Your task to perform on an android device: Go to Android settings Image 0: 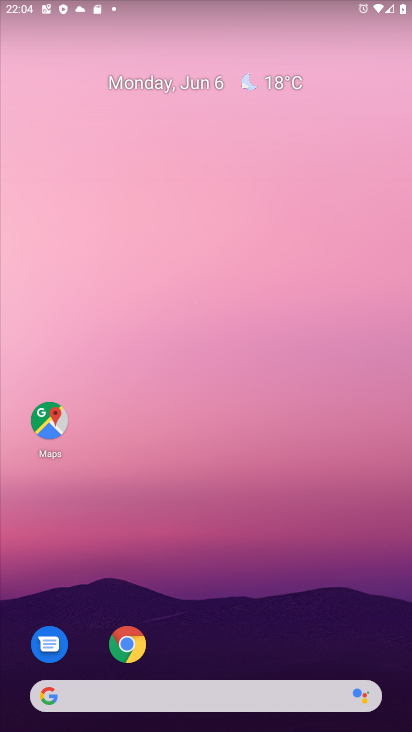
Step 0: press home button
Your task to perform on an android device: Go to Android settings Image 1: 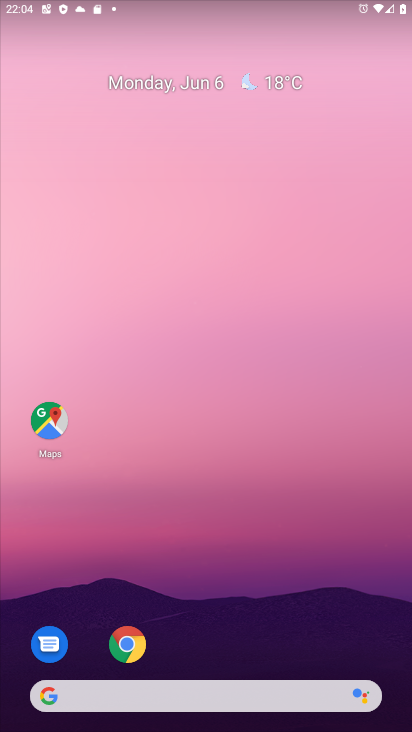
Step 1: drag from (329, 606) to (258, 190)
Your task to perform on an android device: Go to Android settings Image 2: 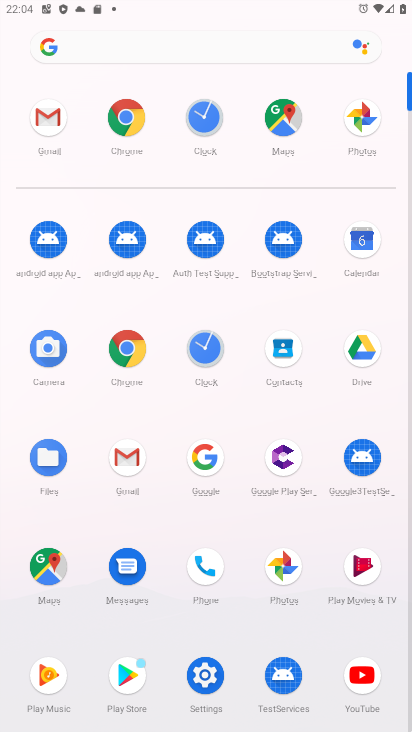
Step 2: click (207, 662)
Your task to perform on an android device: Go to Android settings Image 3: 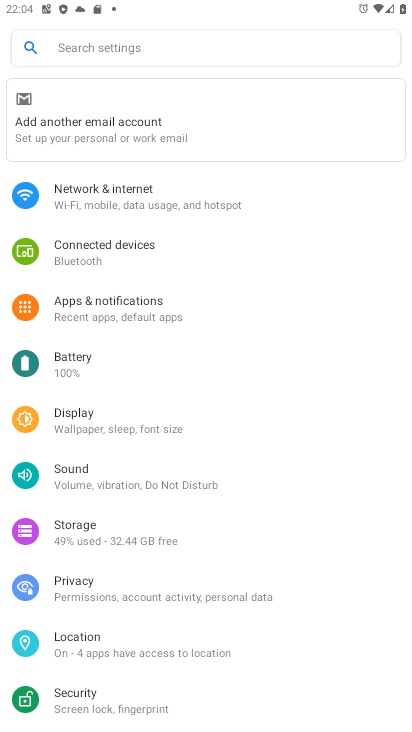
Step 3: drag from (251, 650) to (220, 415)
Your task to perform on an android device: Go to Android settings Image 4: 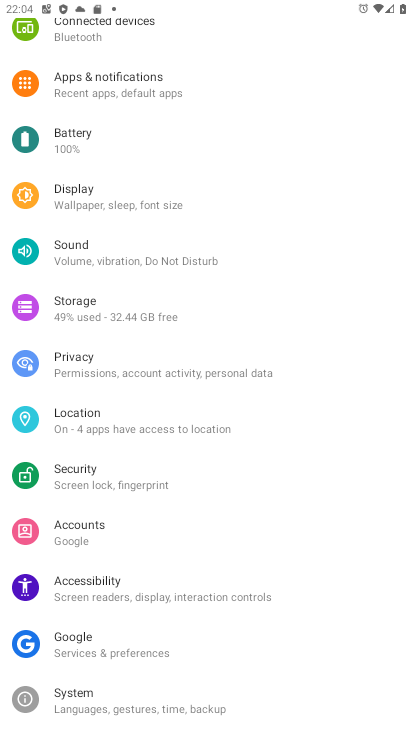
Step 4: drag from (183, 647) to (187, 354)
Your task to perform on an android device: Go to Android settings Image 5: 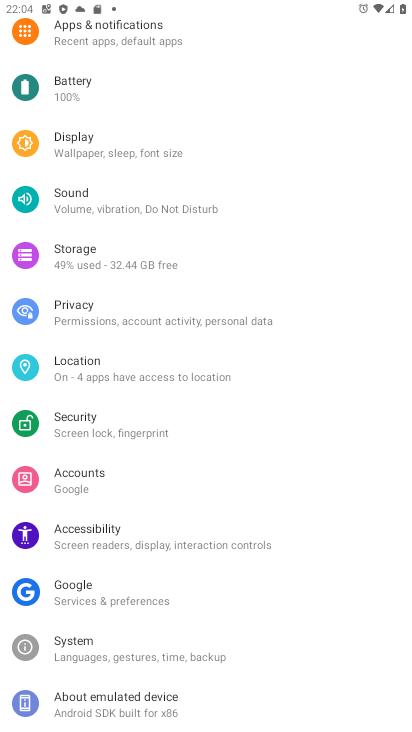
Step 5: click (189, 699)
Your task to perform on an android device: Go to Android settings Image 6: 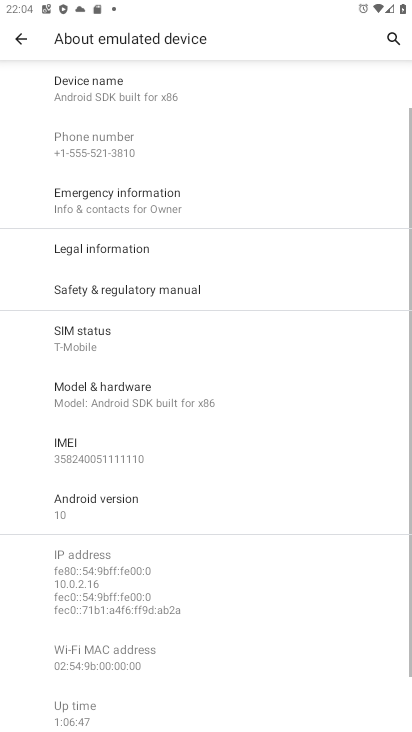
Step 6: drag from (275, 653) to (272, 327)
Your task to perform on an android device: Go to Android settings Image 7: 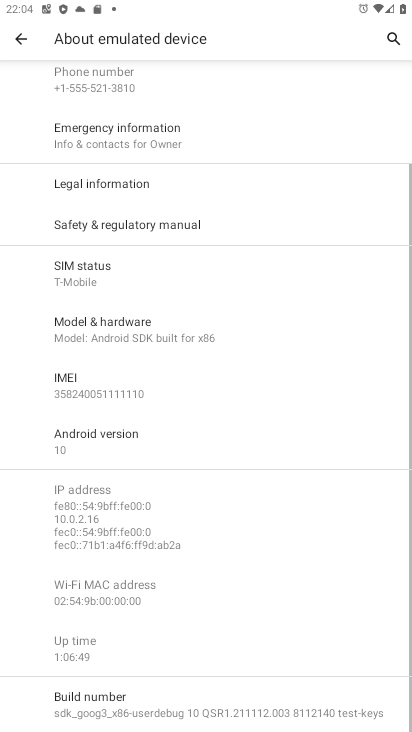
Step 7: click (91, 447)
Your task to perform on an android device: Go to Android settings Image 8: 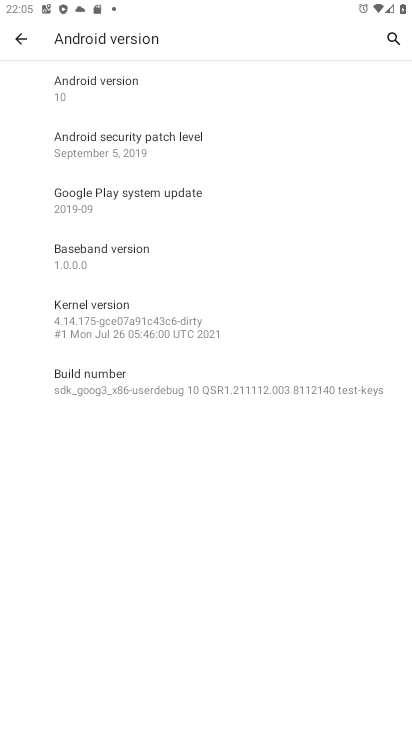
Step 8: task complete